Your task to perform on an android device: Search for "usb-c to usb-a" on walmart, select the first entry, and add it to the cart. Image 0: 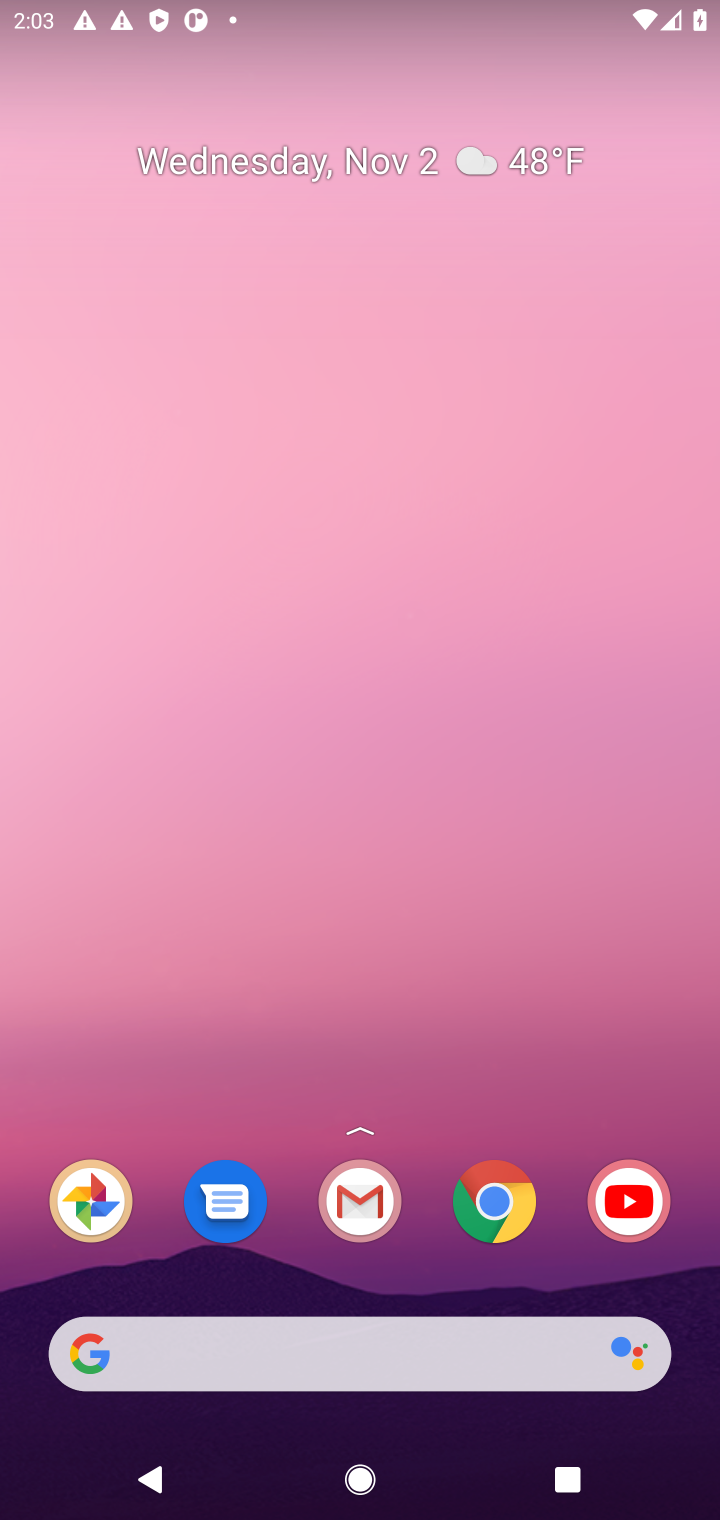
Step 0: click (495, 1214)
Your task to perform on an android device: Search for "usb-c to usb-a" on walmart, select the first entry, and add it to the cart. Image 1: 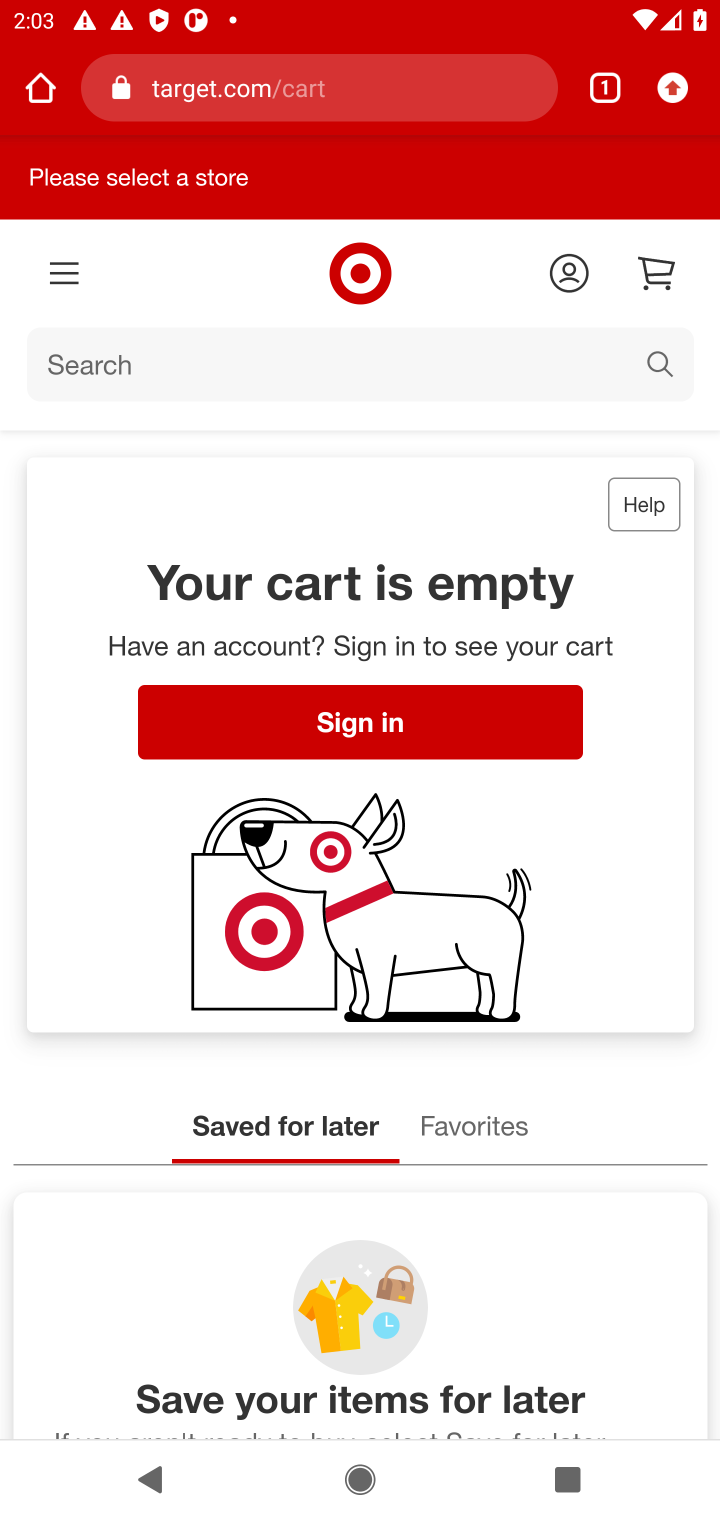
Step 1: click (355, 73)
Your task to perform on an android device: Search for "usb-c to usb-a" on walmart, select the first entry, and add it to the cart. Image 2: 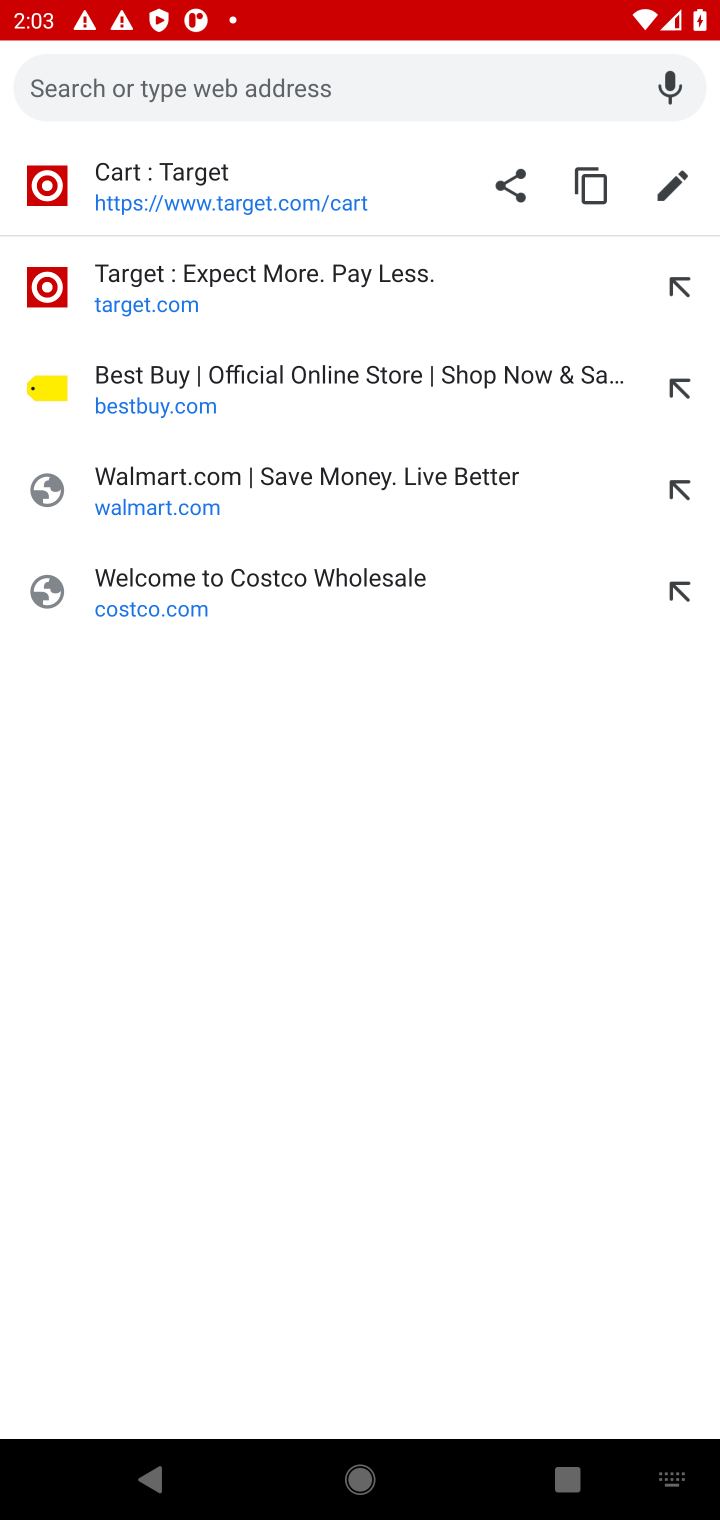
Step 2: click (194, 486)
Your task to perform on an android device: Search for "usb-c to usb-a" on walmart, select the first entry, and add it to the cart. Image 3: 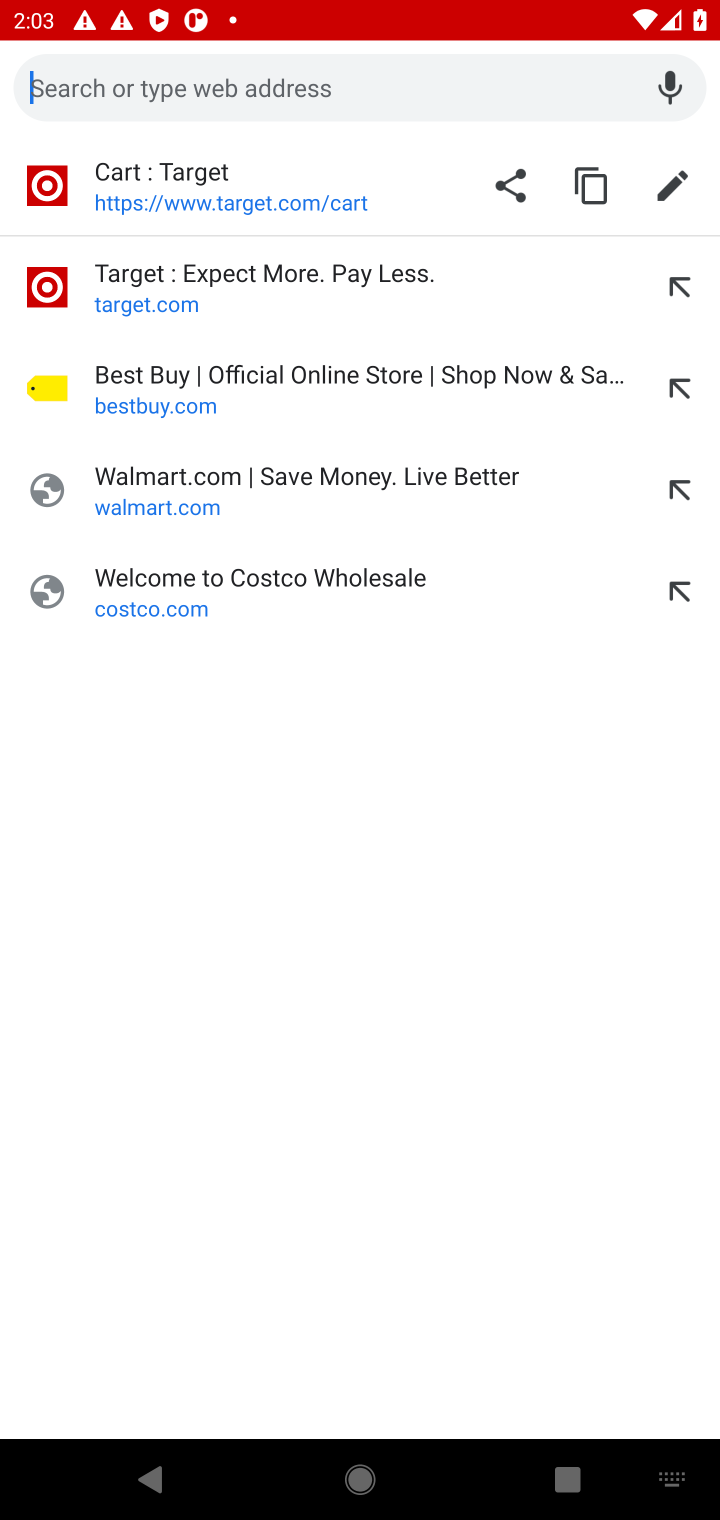
Step 3: click (194, 486)
Your task to perform on an android device: Search for "usb-c to usb-a" on walmart, select the first entry, and add it to the cart. Image 4: 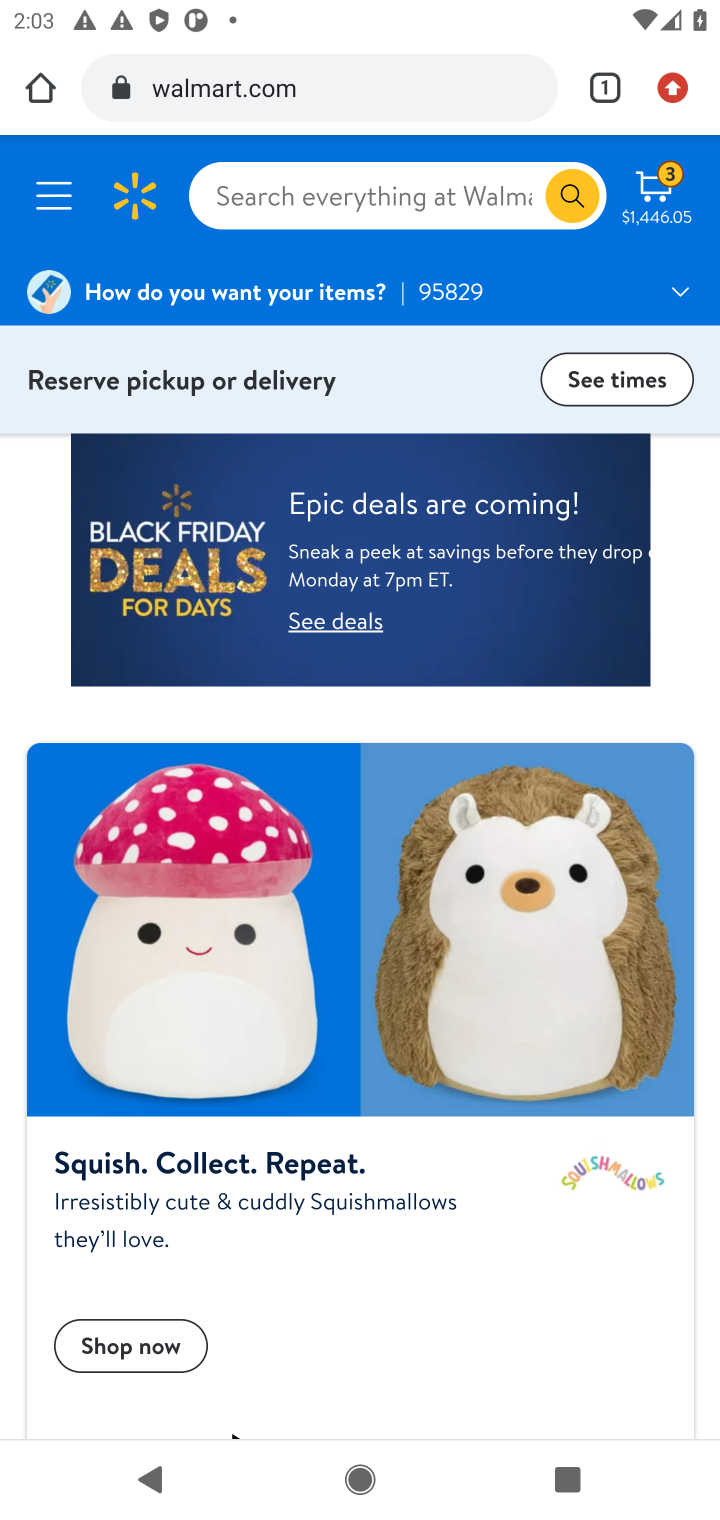
Step 4: click (366, 194)
Your task to perform on an android device: Search for "usb-c to usb-a" on walmart, select the first entry, and add it to the cart. Image 5: 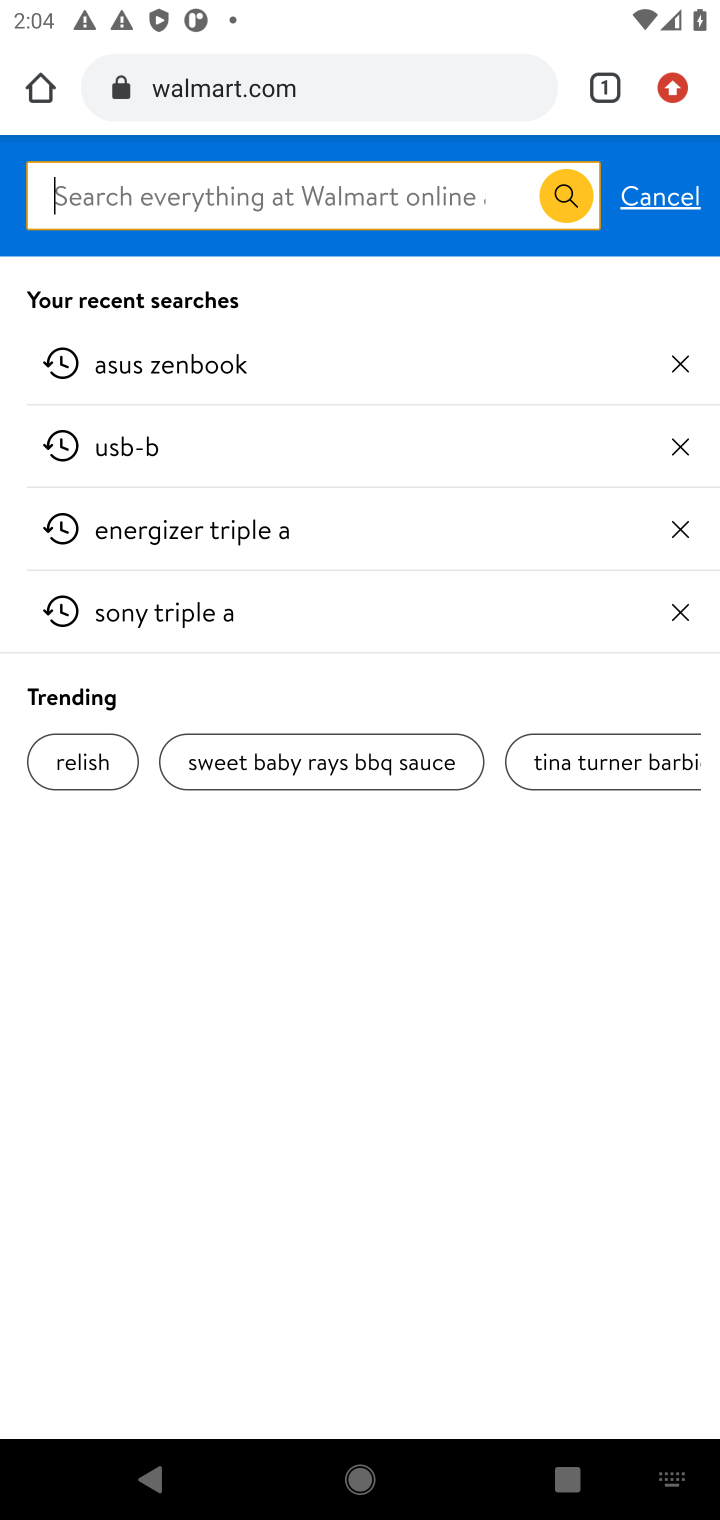
Step 5: type "usb-c to usb-a"
Your task to perform on an android device: Search for "usb-c to usb-a" on walmart, select the first entry, and add it to the cart. Image 6: 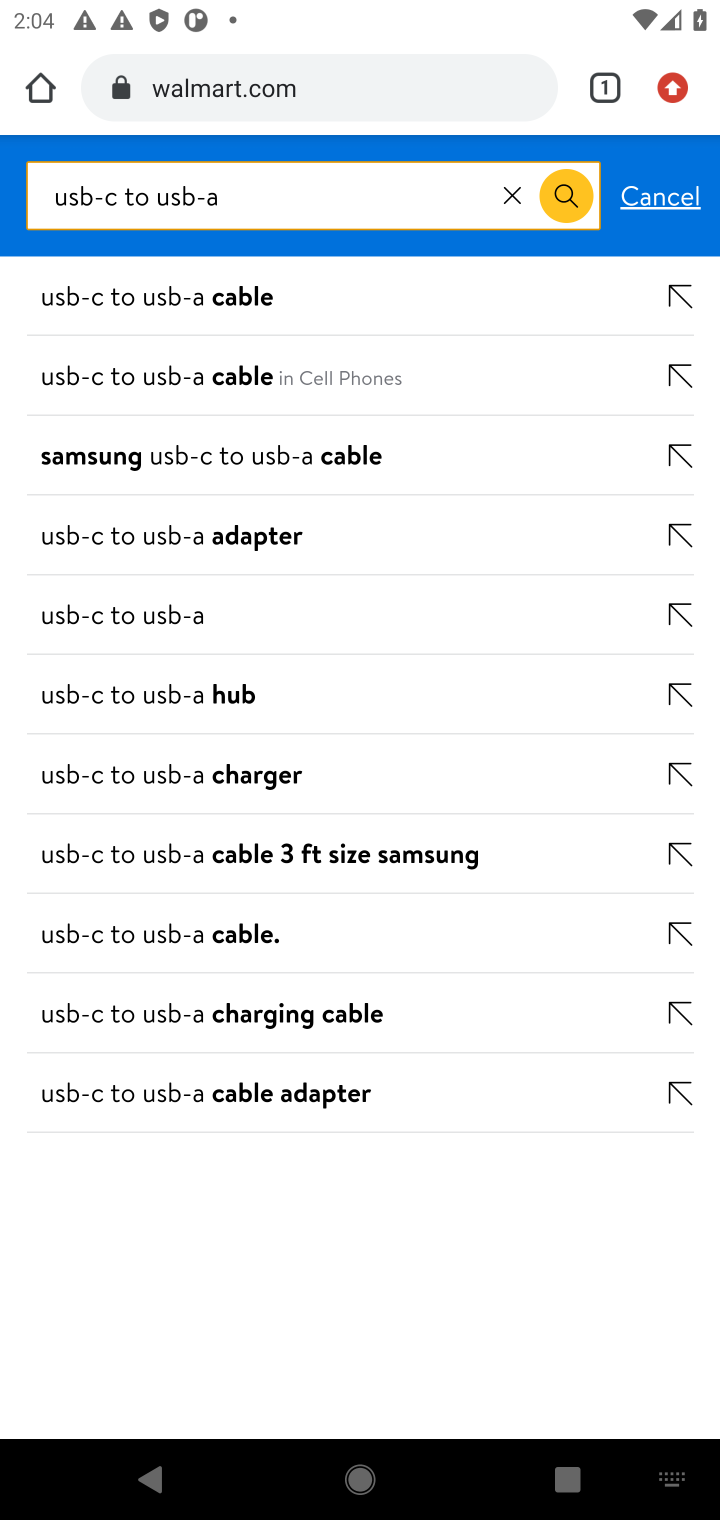
Step 6: click (205, 302)
Your task to perform on an android device: Search for "usb-c to usb-a" on walmart, select the first entry, and add it to the cart. Image 7: 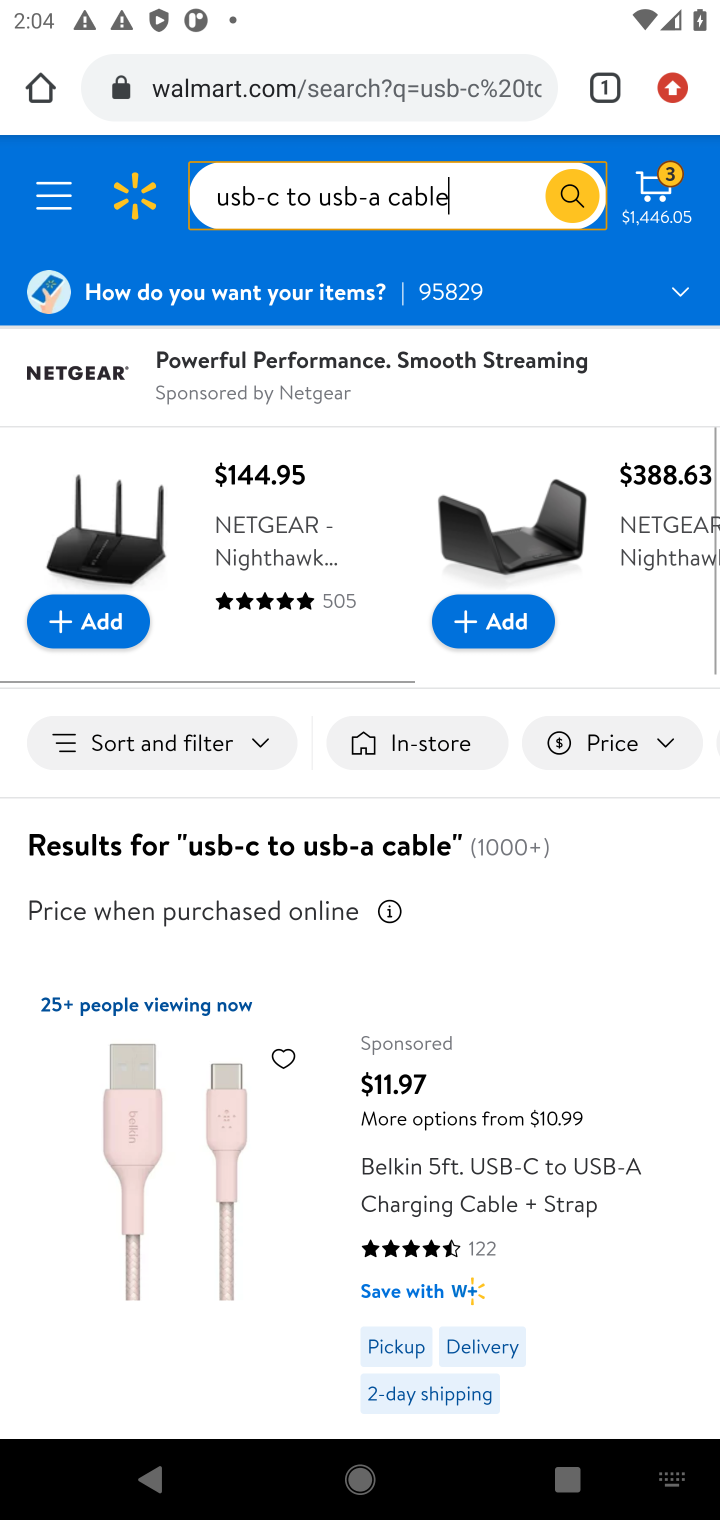
Step 7: click (169, 1147)
Your task to perform on an android device: Search for "usb-c to usb-a" on walmart, select the first entry, and add it to the cart. Image 8: 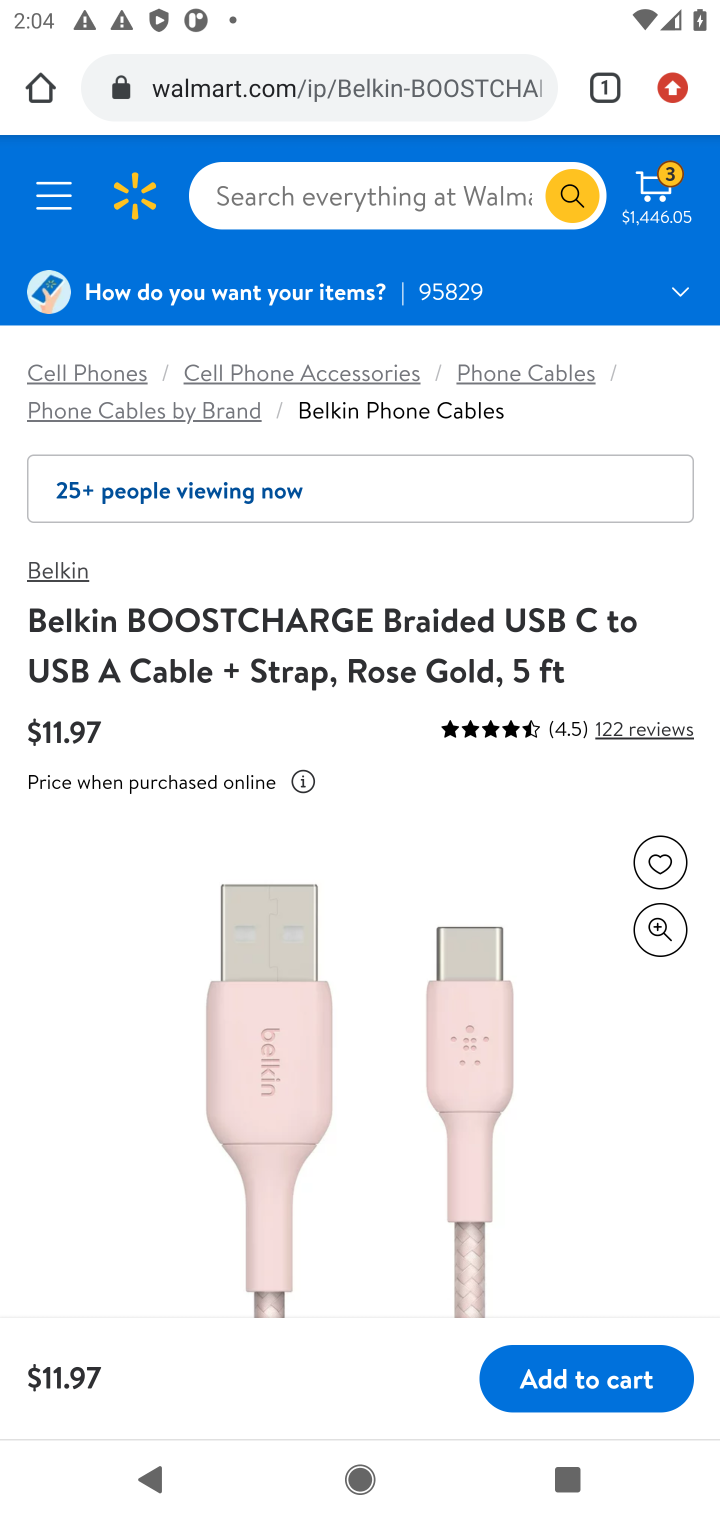
Step 8: click (576, 1382)
Your task to perform on an android device: Search for "usb-c to usb-a" on walmart, select the first entry, and add it to the cart. Image 9: 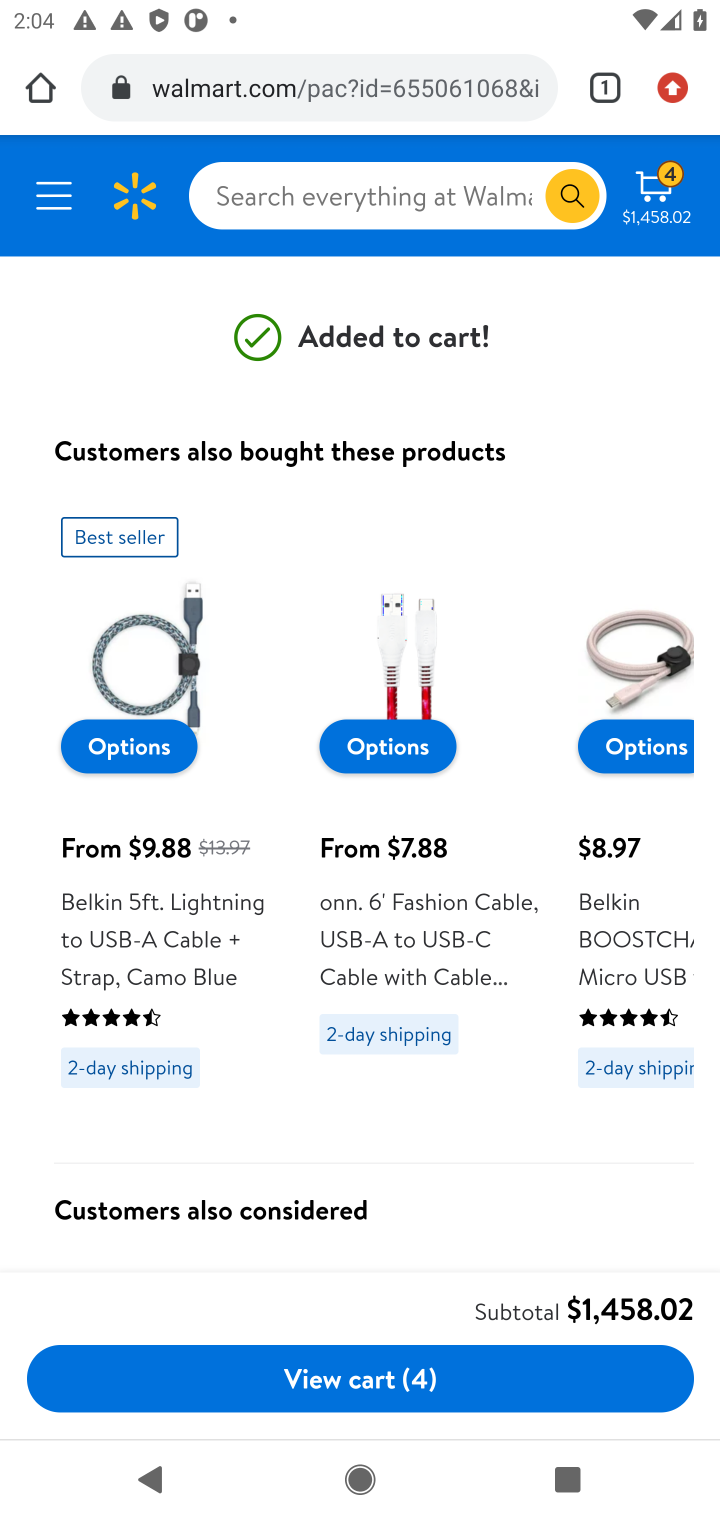
Step 9: task complete